Your task to perform on an android device: check out phone information Image 0: 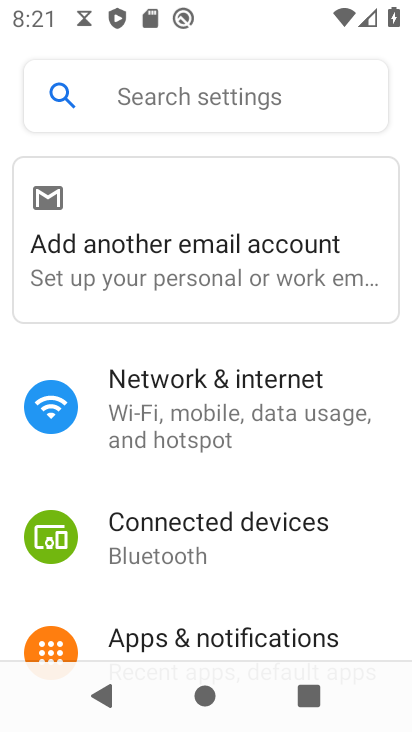
Step 0: press home button
Your task to perform on an android device: check out phone information Image 1: 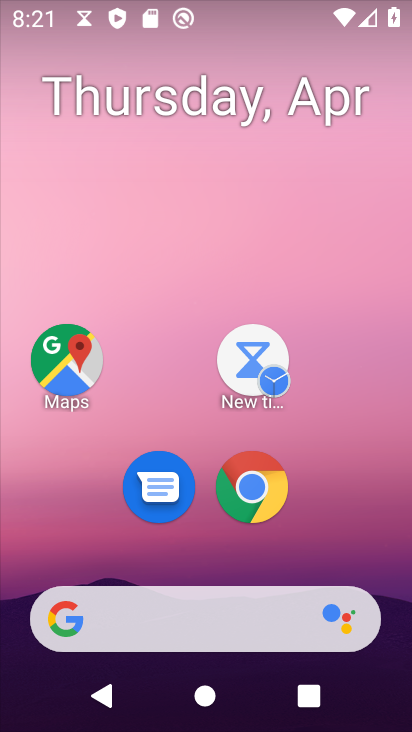
Step 1: drag from (290, 542) to (306, 125)
Your task to perform on an android device: check out phone information Image 2: 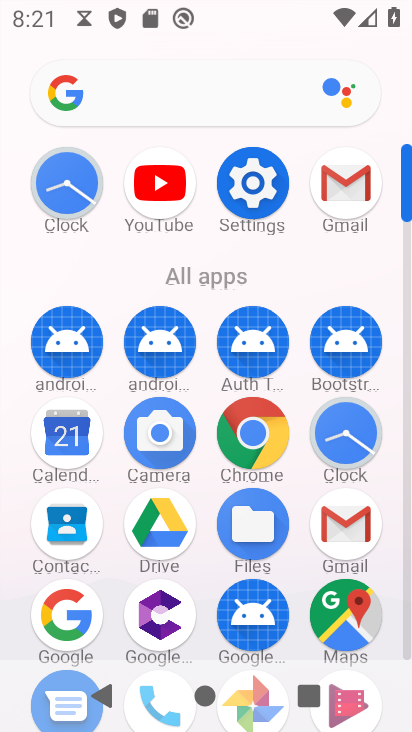
Step 2: drag from (116, 649) to (115, 356)
Your task to perform on an android device: check out phone information Image 3: 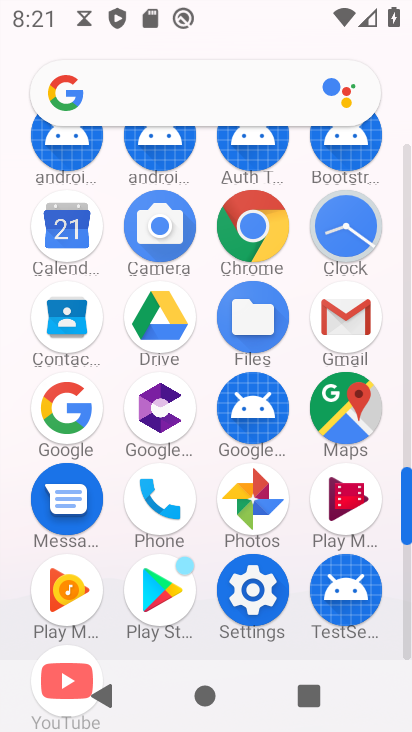
Step 3: click (166, 509)
Your task to perform on an android device: check out phone information Image 4: 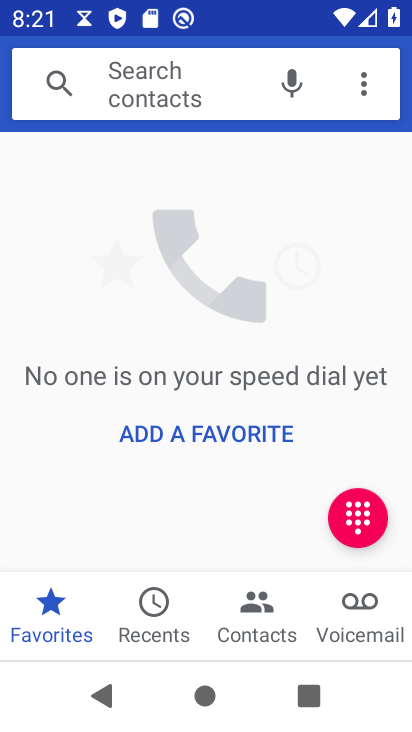
Step 4: click (362, 86)
Your task to perform on an android device: check out phone information Image 5: 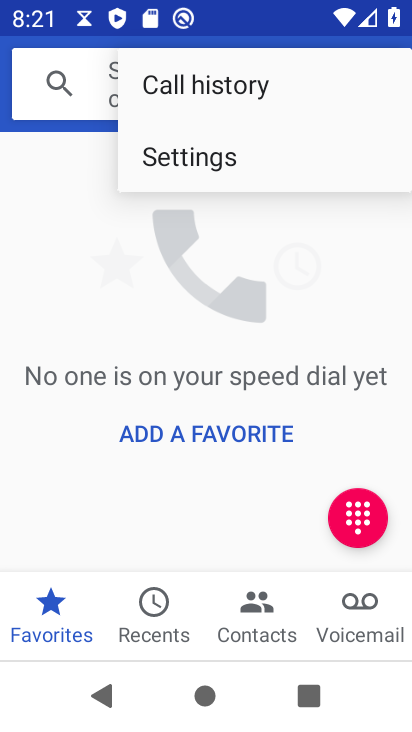
Step 5: click (185, 158)
Your task to perform on an android device: check out phone information Image 6: 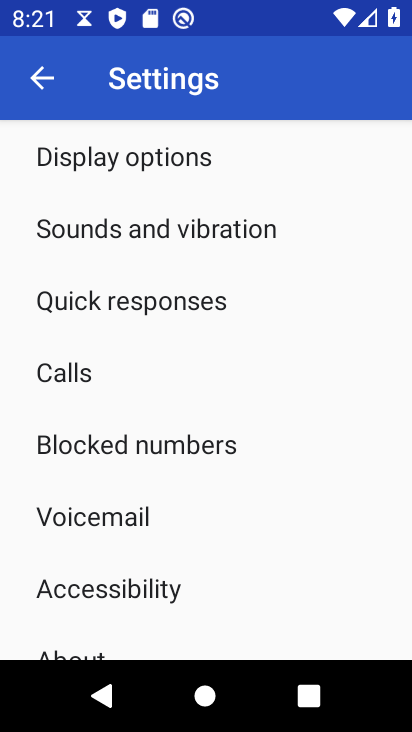
Step 6: click (85, 653)
Your task to perform on an android device: check out phone information Image 7: 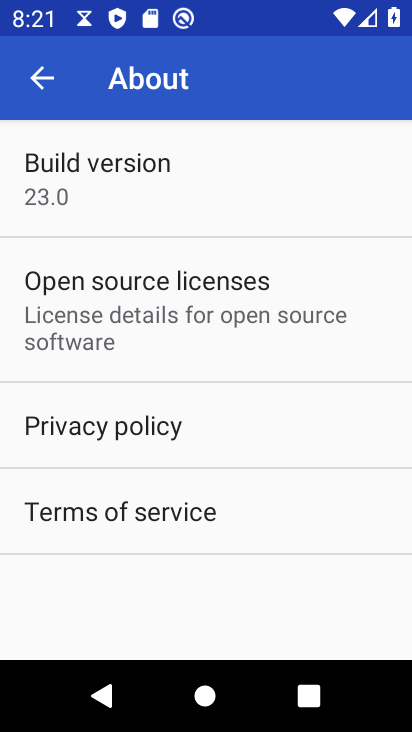
Step 7: task complete